Your task to perform on an android device: change your default location settings in chrome Image 0: 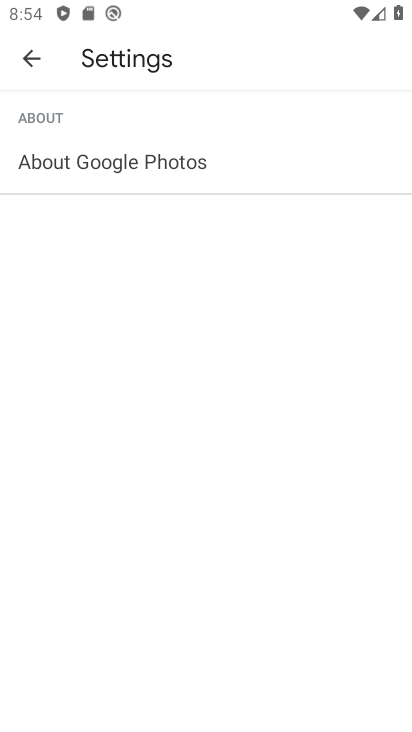
Step 0: press home button
Your task to perform on an android device: change your default location settings in chrome Image 1: 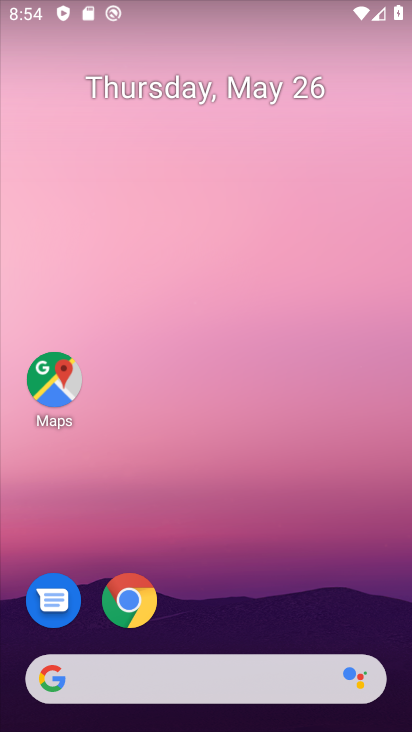
Step 1: click (208, 641)
Your task to perform on an android device: change your default location settings in chrome Image 2: 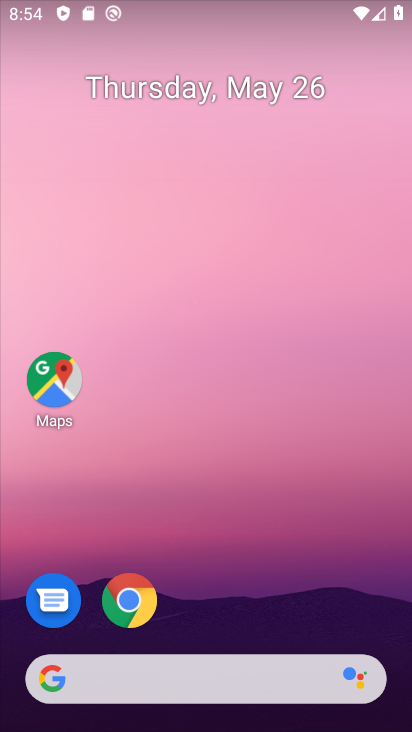
Step 2: click (135, 604)
Your task to perform on an android device: change your default location settings in chrome Image 3: 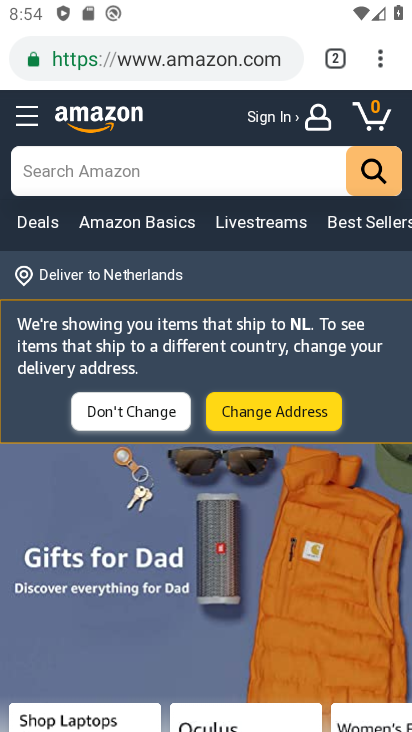
Step 3: click (393, 63)
Your task to perform on an android device: change your default location settings in chrome Image 4: 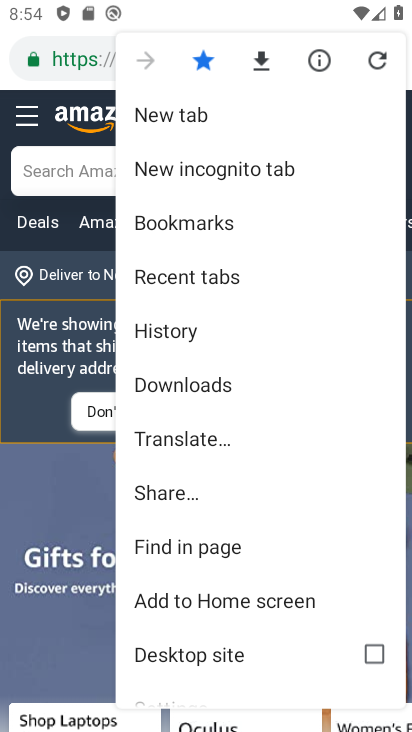
Step 4: drag from (186, 682) to (225, 205)
Your task to perform on an android device: change your default location settings in chrome Image 5: 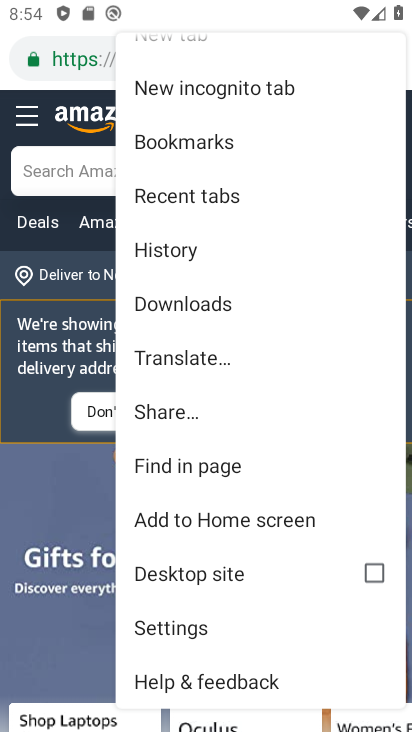
Step 5: click (235, 613)
Your task to perform on an android device: change your default location settings in chrome Image 6: 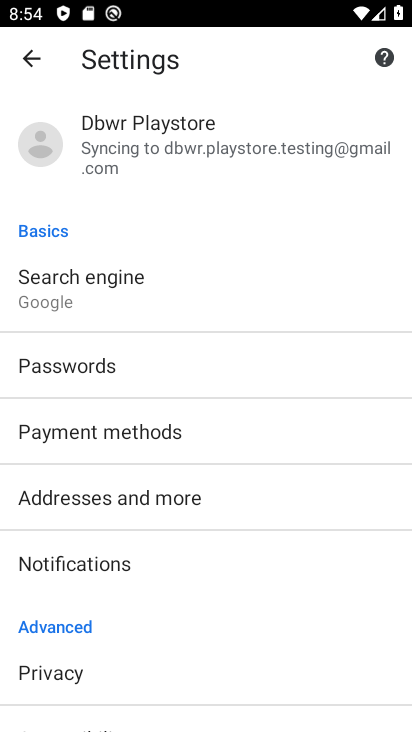
Step 6: drag from (235, 613) to (212, 237)
Your task to perform on an android device: change your default location settings in chrome Image 7: 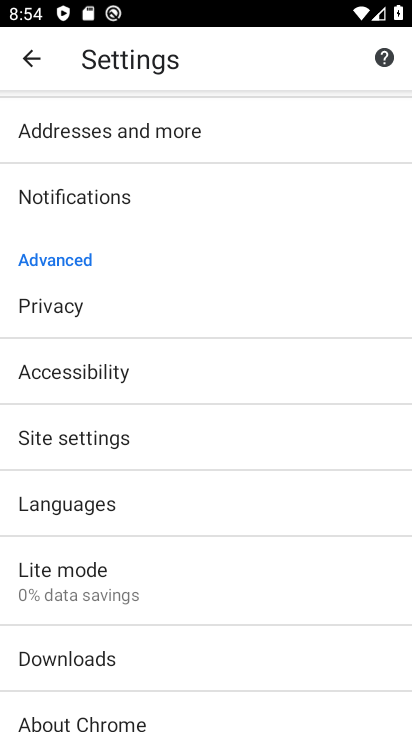
Step 7: drag from (159, 268) to (157, 646)
Your task to perform on an android device: change your default location settings in chrome Image 8: 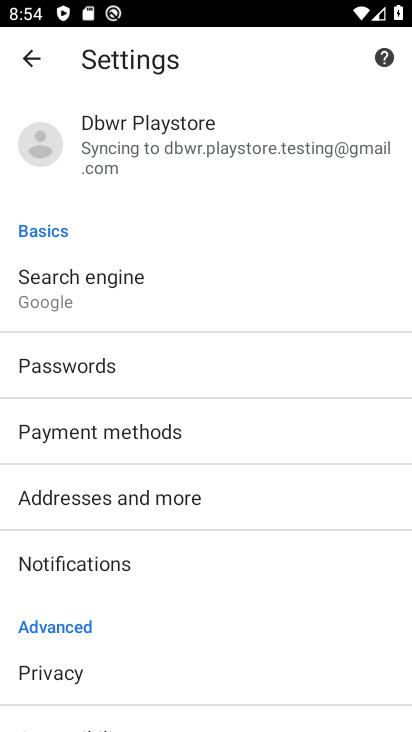
Step 8: drag from (142, 667) to (195, 288)
Your task to perform on an android device: change your default location settings in chrome Image 9: 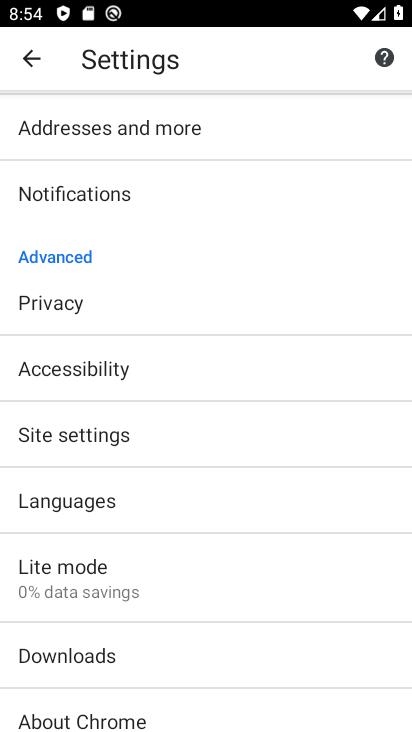
Step 9: click (128, 435)
Your task to perform on an android device: change your default location settings in chrome Image 10: 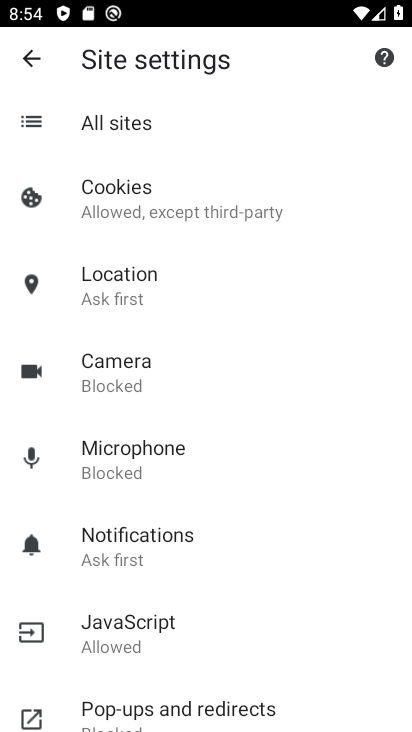
Step 10: click (153, 284)
Your task to perform on an android device: change your default location settings in chrome Image 11: 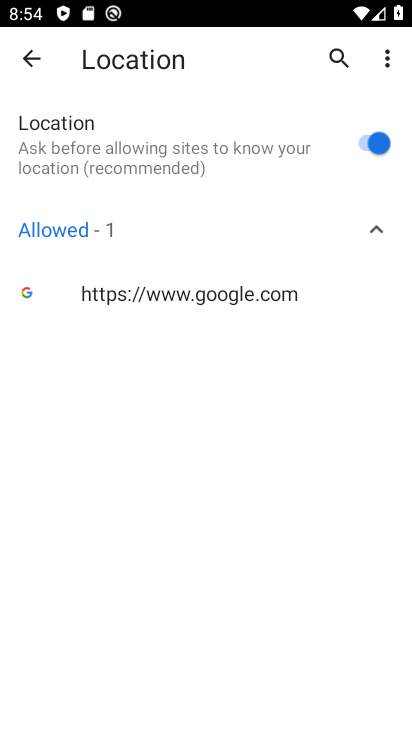
Step 11: click (388, 146)
Your task to perform on an android device: change your default location settings in chrome Image 12: 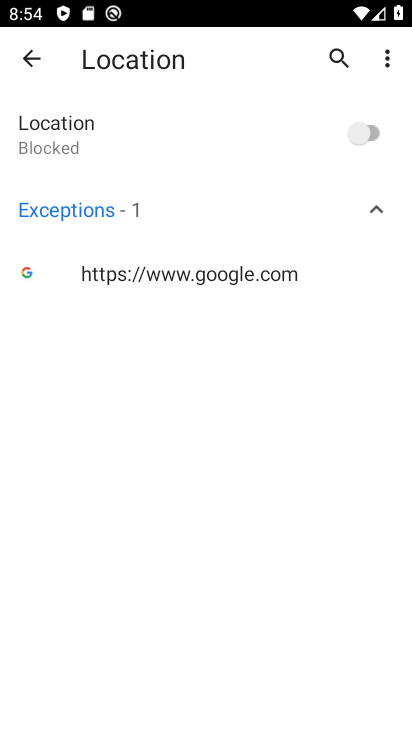
Step 12: task complete